Your task to perform on an android device: turn on notifications settings in the gmail app Image 0: 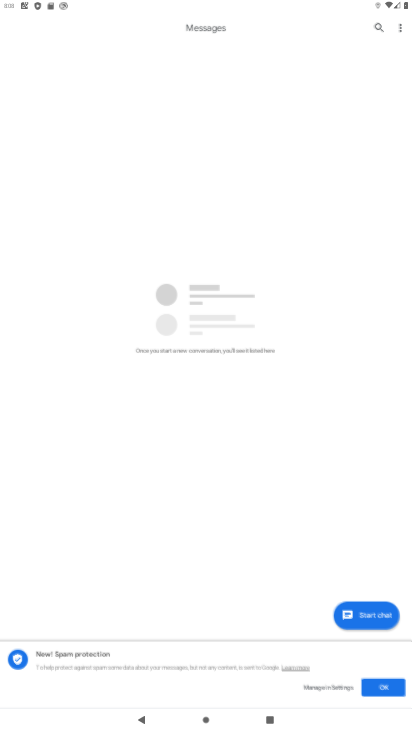
Step 0: drag from (214, 656) to (231, 284)
Your task to perform on an android device: turn on notifications settings in the gmail app Image 1: 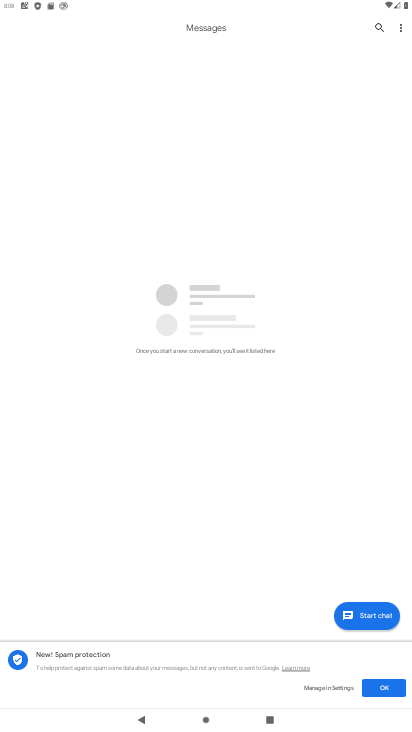
Step 1: press home button
Your task to perform on an android device: turn on notifications settings in the gmail app Image 2: 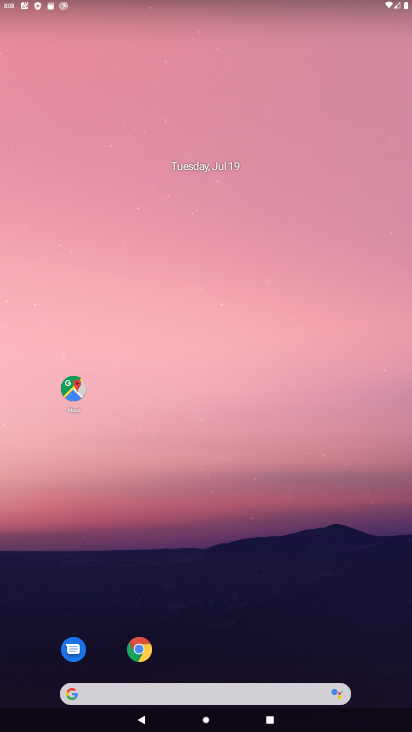
Step 2: drag from (205, 658) to (286, 0)
Your task to perform on an android device: turn on notifications settings in the gmail app Image 3: 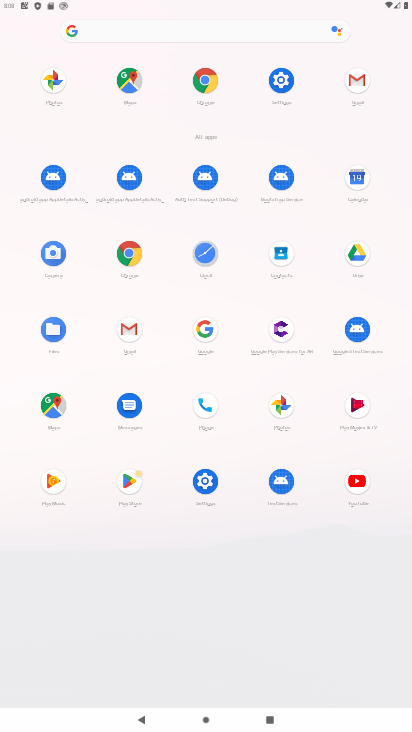
Step 3: click (128, 325)
Your task to perform on an android device: turn on notifications settings in the gmail app Image 4: 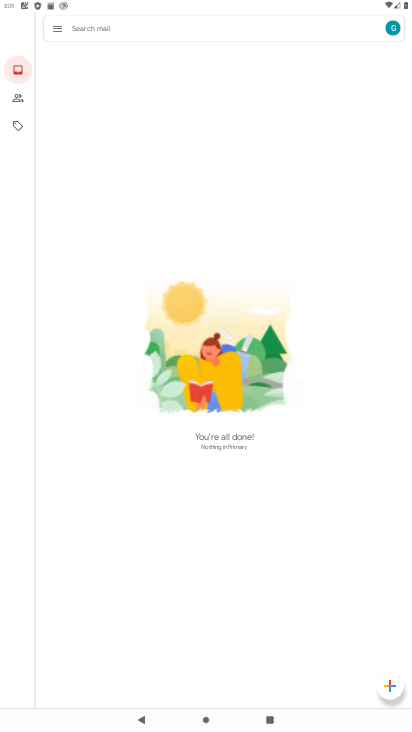
Step 4: click (55, 26)
Your task to perform on an android device: turn on notifications settings in the gmail app Image 5: 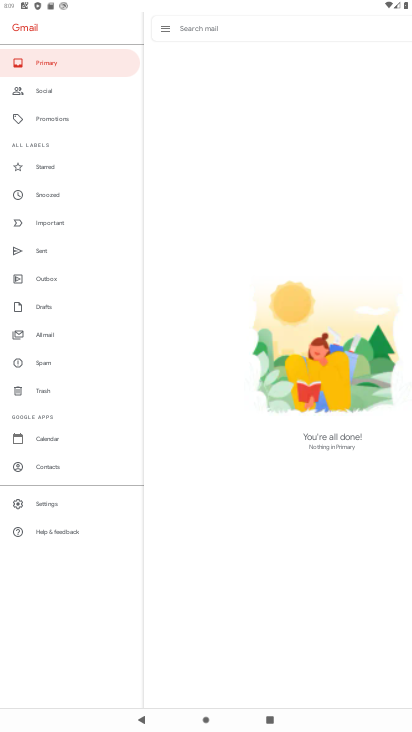
Step 5: click (56, 498)
Your task to perform on an android device: turn on notifications settings in the gmail app Image 6: 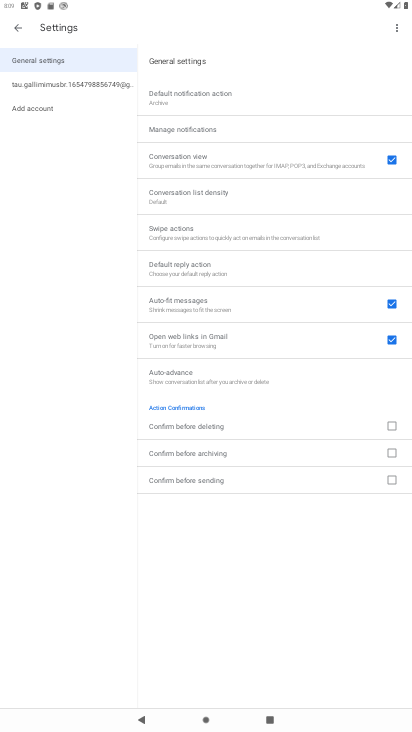
Step 6: click (206, 130)
Your task to perform on an android device: turn on notifications settings in the gmail app Image 7: 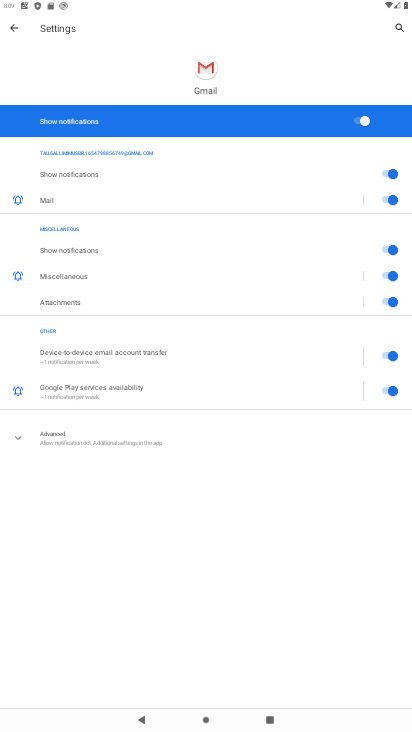
Step 7: task complete